Your task to perform on an android device: Do I have any events today? Image 0: 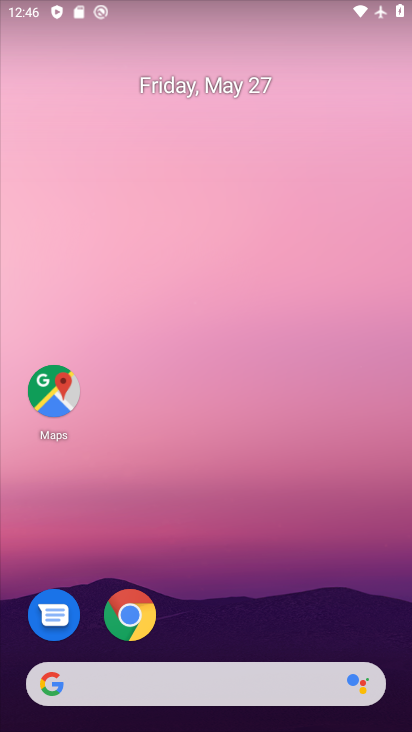
Step 0: press home button
Your task to perform on an android device: Do I have any events today? Image 1: 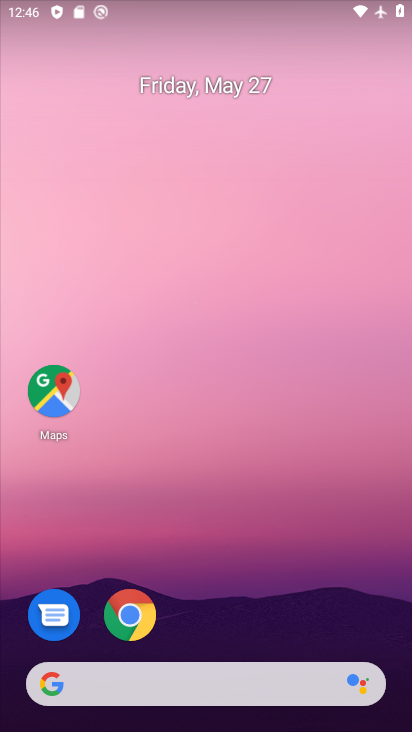
Step 1: drag from (247, 623) to (267, 222)
Your task to perform on an android device: Do I have any events today? Image 2: 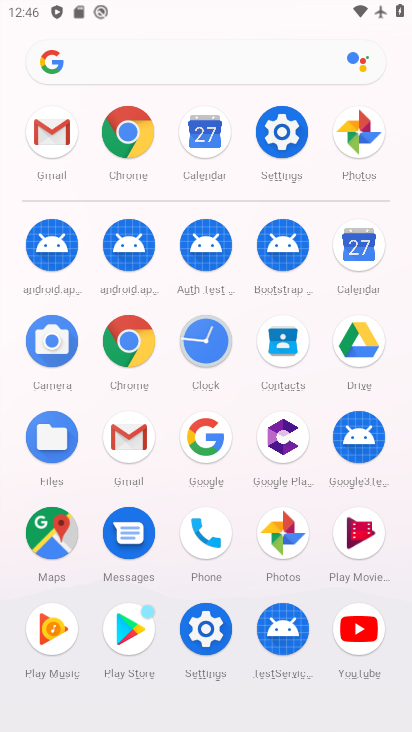
Step 2: click (362, 249)
Your task to perform on an android device: Do I have any events today? Image 3: 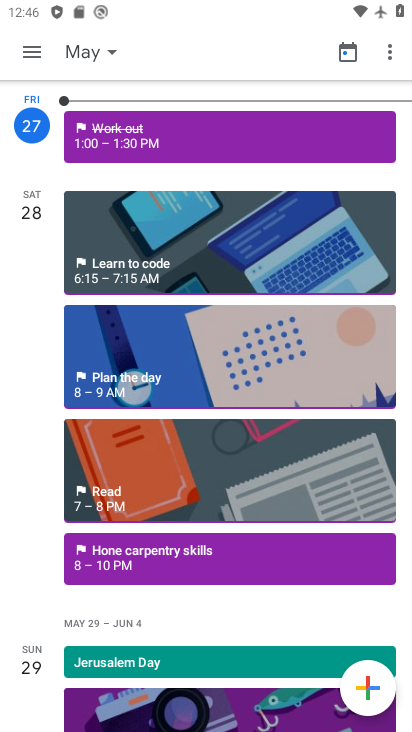
Step 3: click (37, 45)
Your task to perform on an android device: Do I have any events today? Image 4: 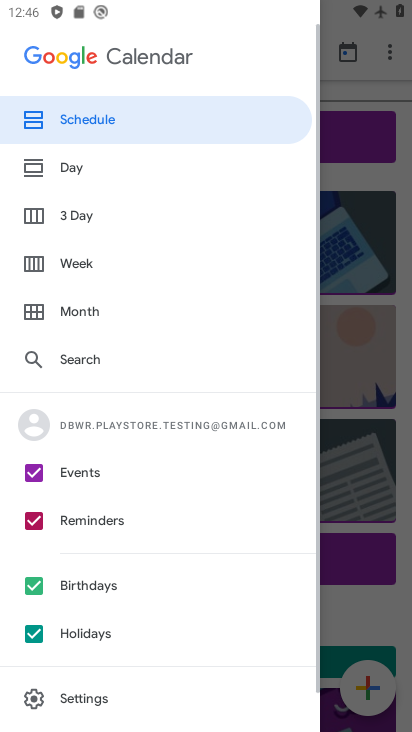
Step 4: click (86, 473)
Your task to perform on an android device: Do I have any events today? Image 5: 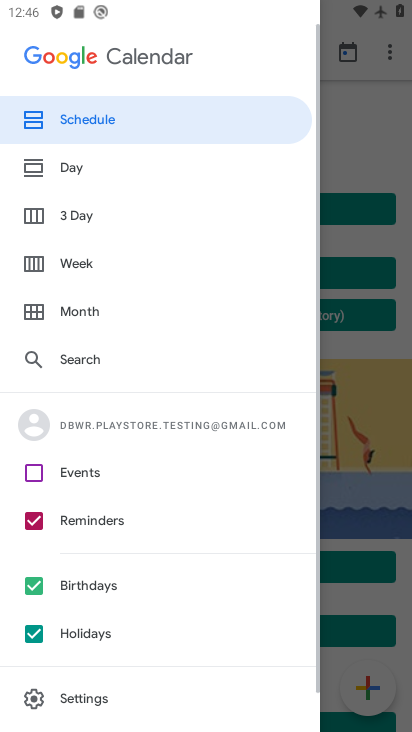
Step 5: click (87, 473)
Your task to perform on an android device: Do I have any events today? Image 6: 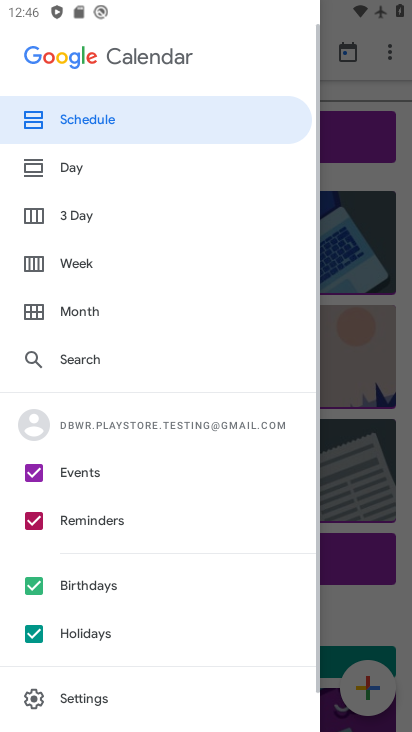
Step 6: click (387, 406)
Your task to perform on an android device: Do I have any events today? Image 7: 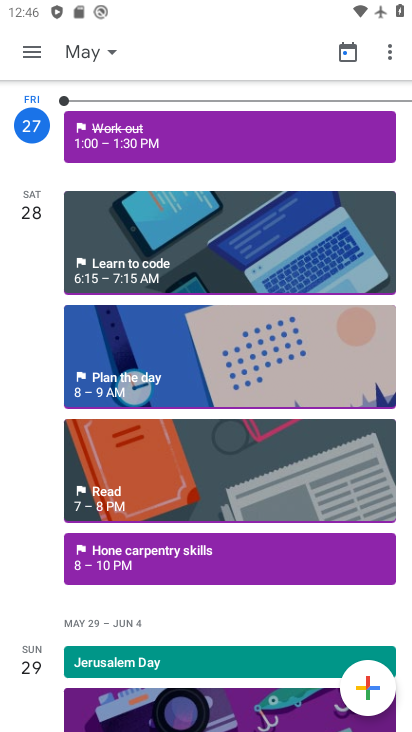
Step 7: task complete